Your task to perform on an android device: move a message to another label in the gmail app Image 0: 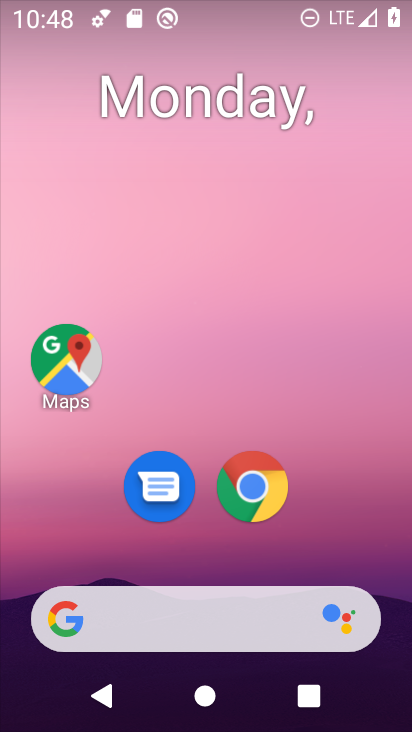
Step 0: drag from (47, 570) to (223, 227)
Your task to perform on an android device: move a message to another label in the gmail app Image 1: 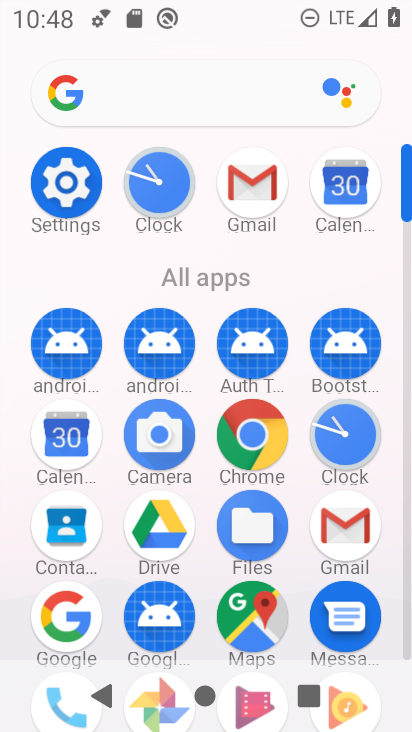
Step 1: click (246, 198)
Your task to perform on an android device: move a message to another label in the gmail app Image 2: 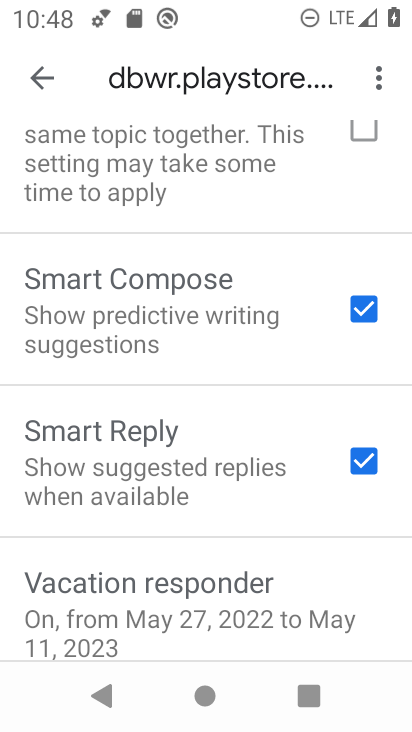
Step 2: task complete